Your task to perform on an android device: Go to Reddit.com Image 0: 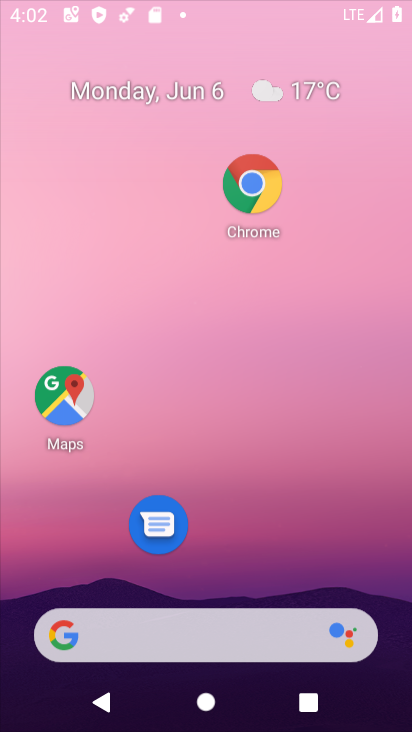
Step 0: click (261, 178)
Your task to perform on an android device: Go to Reddit.com Image 1: 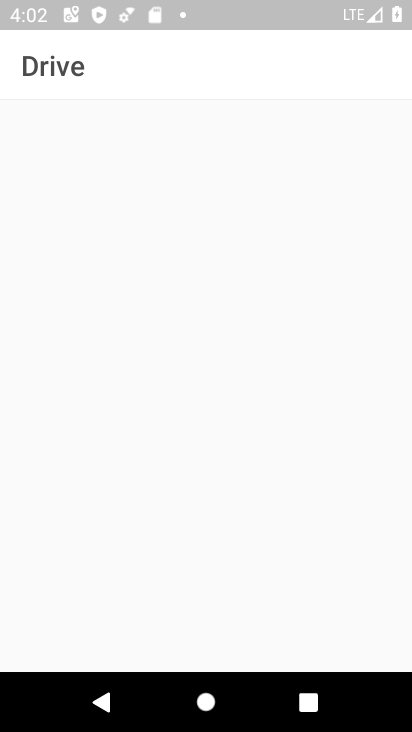
Step 1: press home button
Your task to perform on an android device: Go to Reddit.com Image 2: 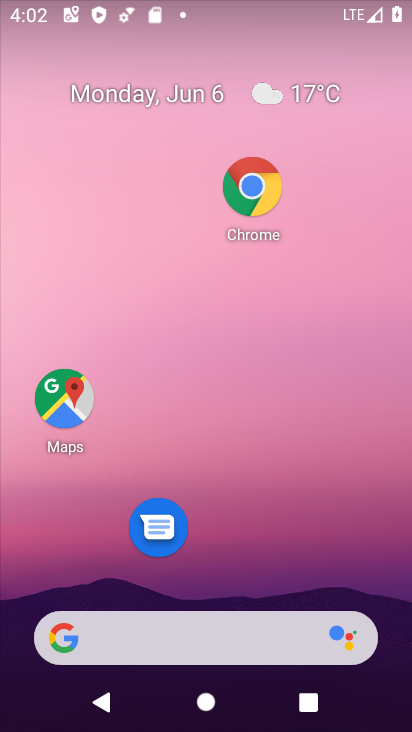
Step 2: drag from (213, 631) to (176, 279)
Your task to perform on an android device: Go to Reddit.com Image 3: 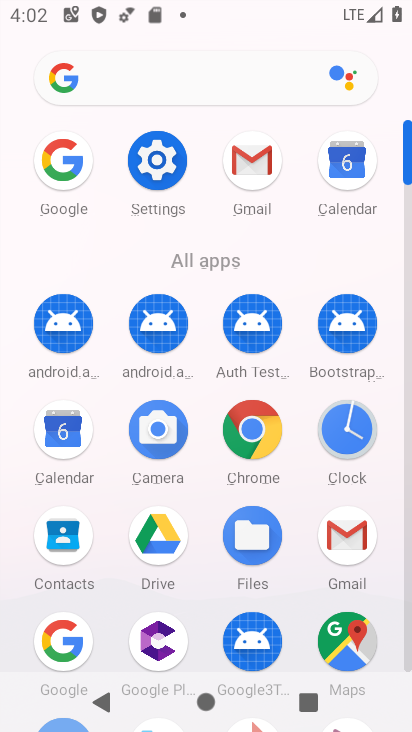
Step 3: click (68, 662)
Your task to perform on an android device: Go to Reddit.com Image 4: 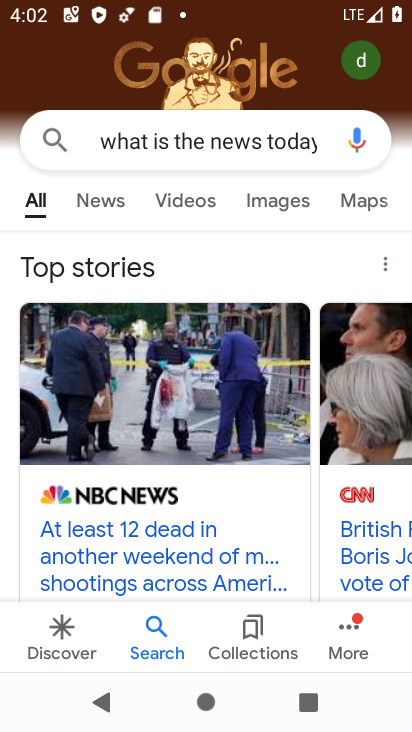
Step 4: click (70, 144)
Your task to perform on an android device: Go to Reddit.com Image 5: 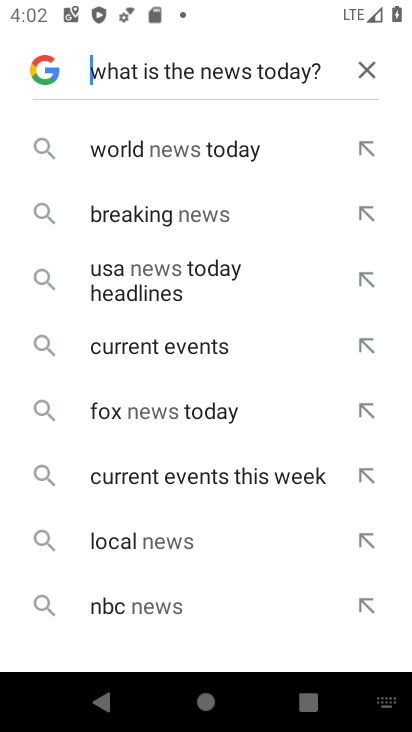
Step 5: drag from (169, 395) to (169, 249)
Your task to perform on an android device: Go to Reddit.com Image 6: 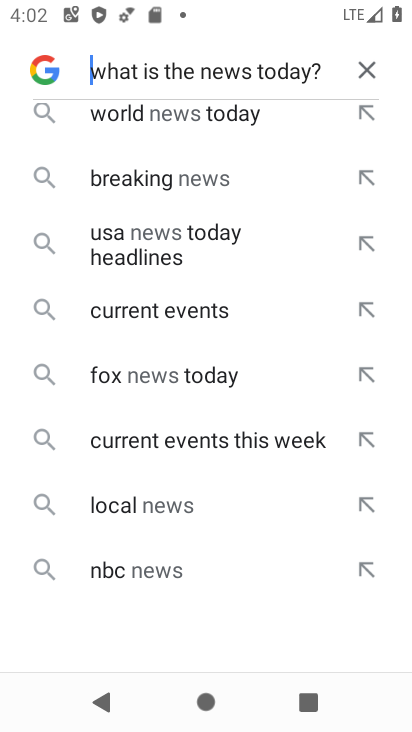
Step 6: click (357, 67)
Your task to perform on an android device: Go to Reddit.com Image 7: 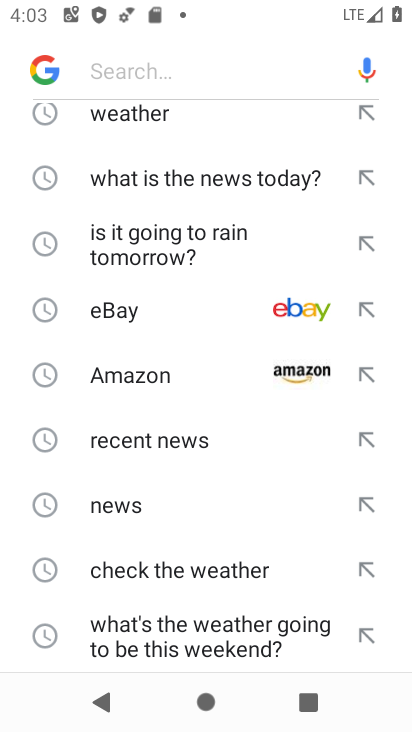
Step 7: drag from (163, 627) to (168, 256)
Your task to perform on an android device: Go to Reddit.com Image 8: 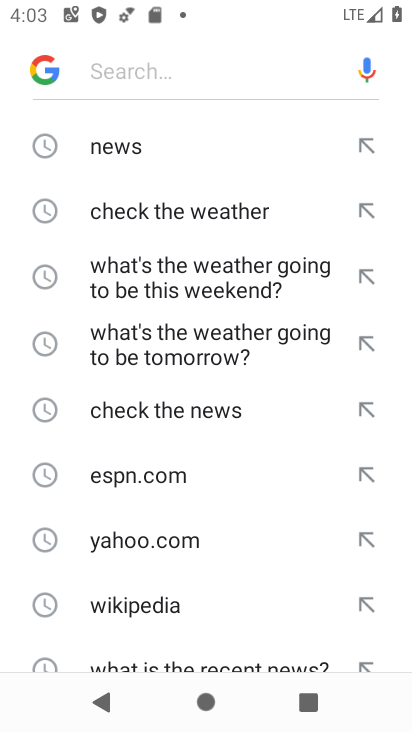
Step 8: drag from (161, 600) to (200, 240)
Your task to perform on an android device: Go to Reddit.com Image 9: 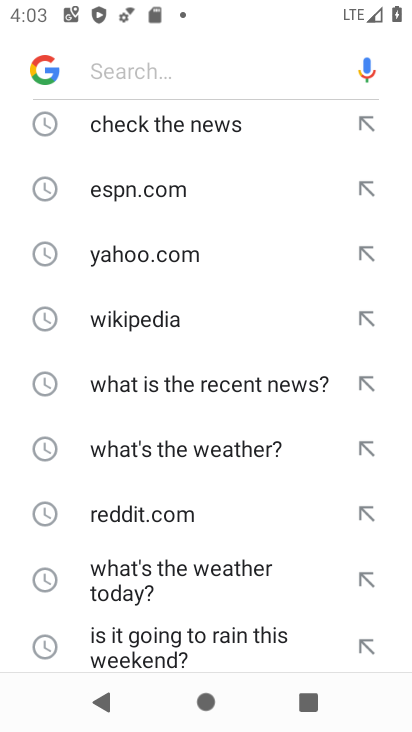
Step 9: click (191, 519)
Your task to perform on an android device: Go to Reddit.com Image 10: 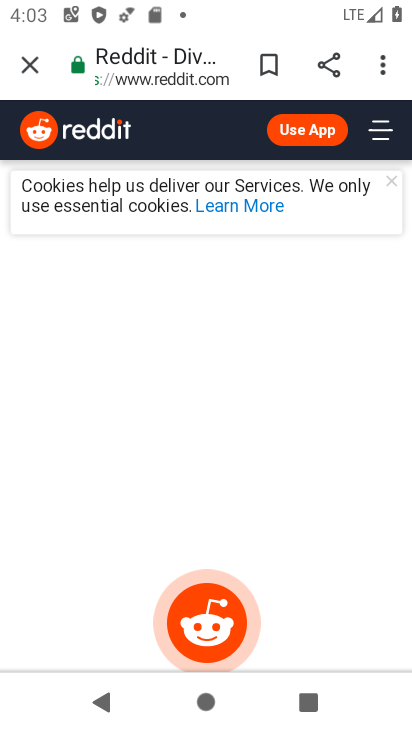
Step 10: task complete